Your task to perform on an android device: Open battery settings Image 0: 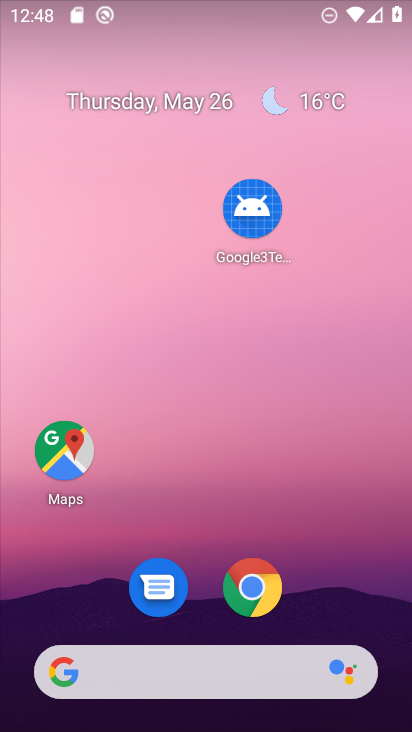
Step 0: drag from (178, 660) to (10, 55)
Your task to perform on an android device: Open battery settings Image 1: 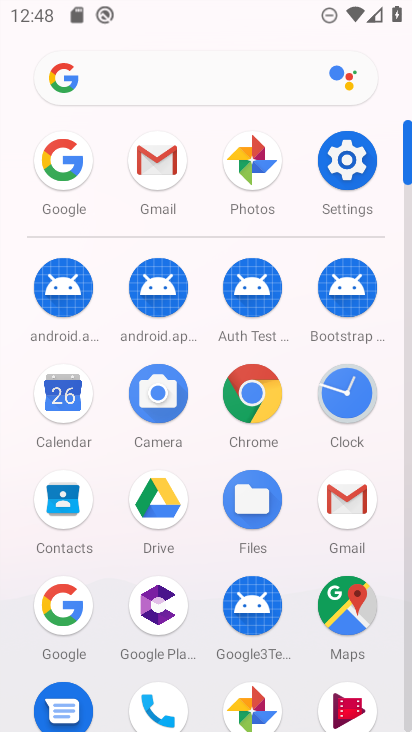
Step 1: click (343, 149)
Your task to perform on an android device: Open battery settings Image 2: 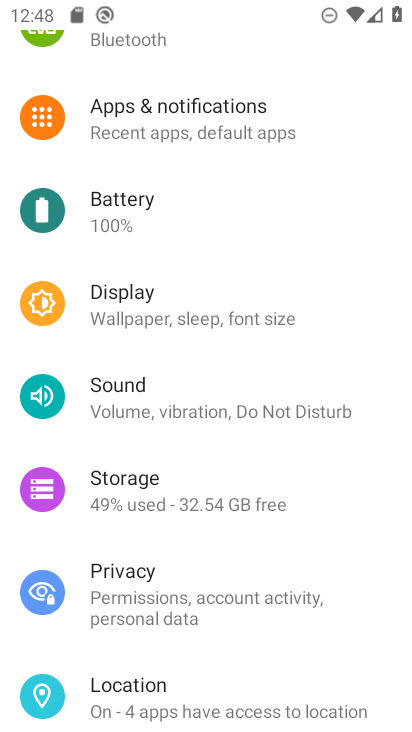
Step 2: click (122, 202)
Your task to perform on an android device: Open battery settings Image 3: 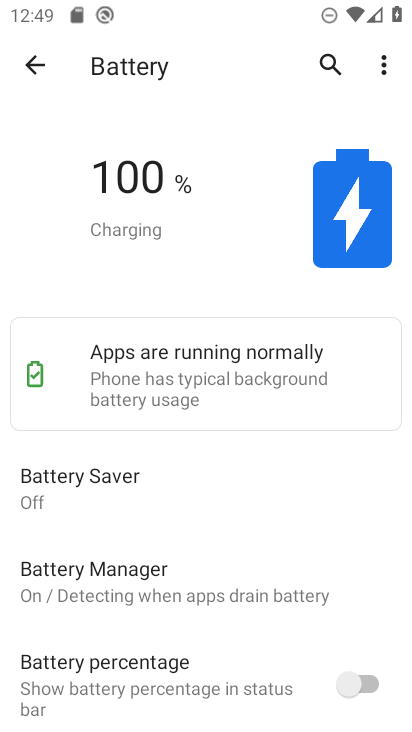
Step 3: task complete